Your task to perform on an android device: Open Youtube and go to the subscriptions tab Image 0: 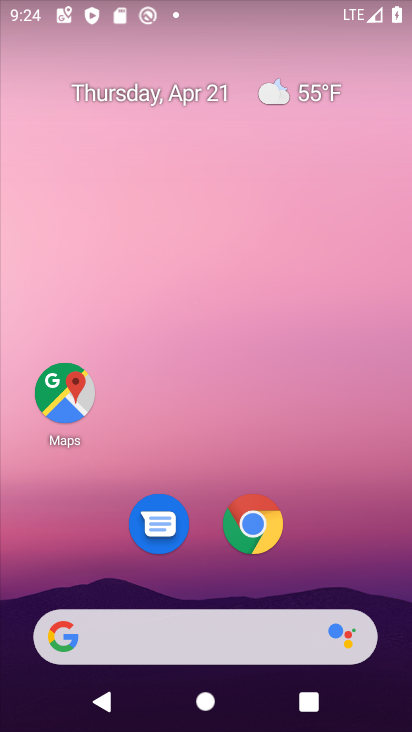
Step 0: drag from (349, 520) to (307, 64)
Your task to perform on an android device: Open Youtube and go to the subscriptions tab Image 1: 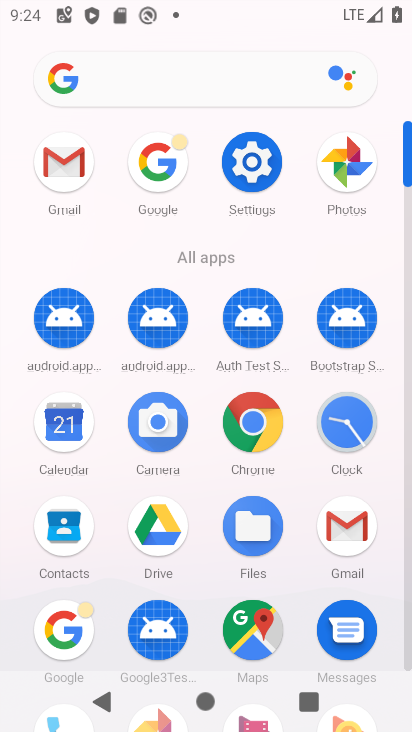
Step 1: drag from (307, 485) to (315, 159)
Your task to perform on an android device: Open Youtube and go to the subscriptions tab Image 2: 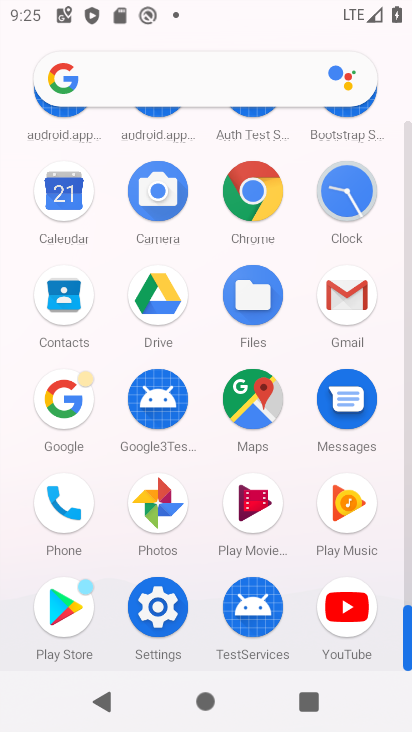
Step 2: click (346, 598)
Your task to perform on an android device: Open Youtube and go to the subscriptions tab Image 3: 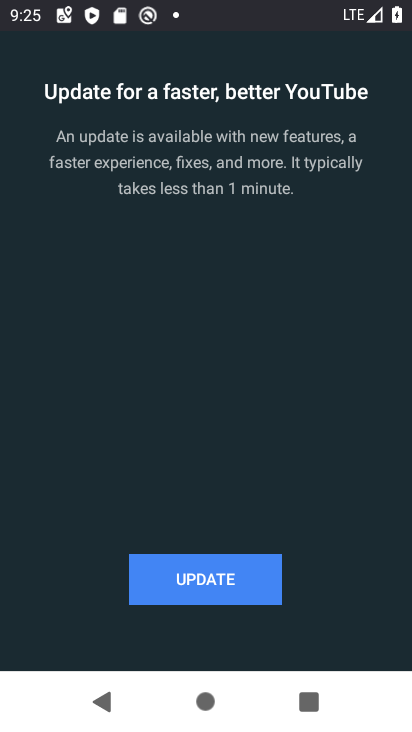
Step 3: click (258, 586)
Your task to perform on an android device: Open Youtube and go to the subscriptions tab Image 4: 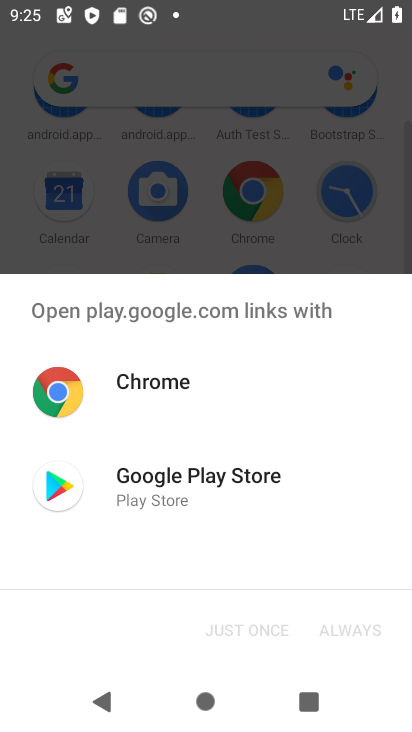
Step 4: click (208, 486)
Your task to perform on an android device: Open Youtube and go to the subscriptions tab Image 5: 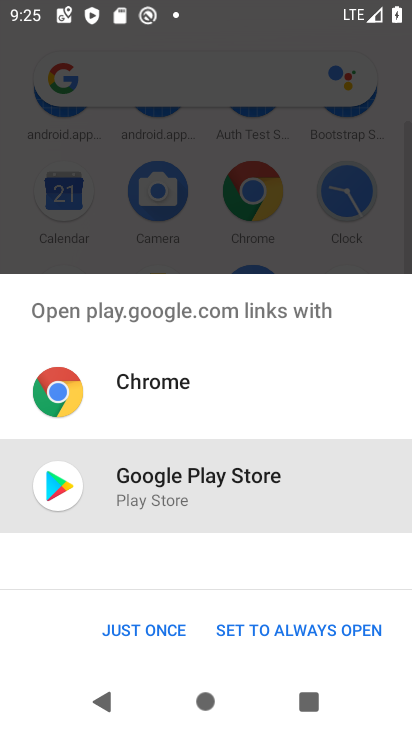
Step 5: click (142, 620)
Your task to perform on an android device: Open Youtube and go to the subscriptions tab Image 6: 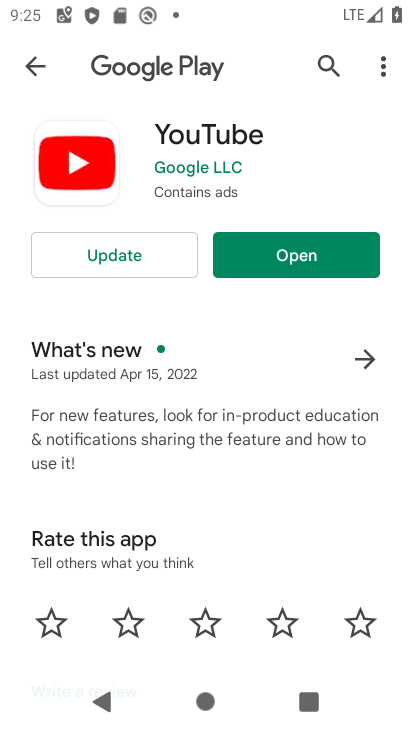
Step 6: click (139, 245)
Your task to perform on an android device: Open Youtube and go to the subscriptions tab Image 7: 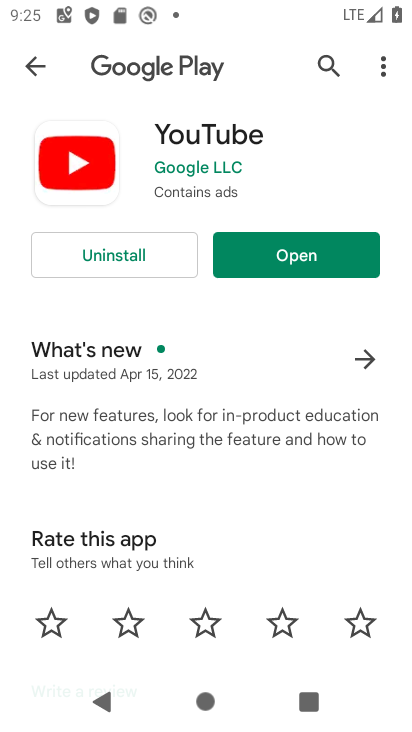
Step 7: click (294, 253)
Your task to perform on an android device: Open Youtube and go to the subscriptions tab Image 8: 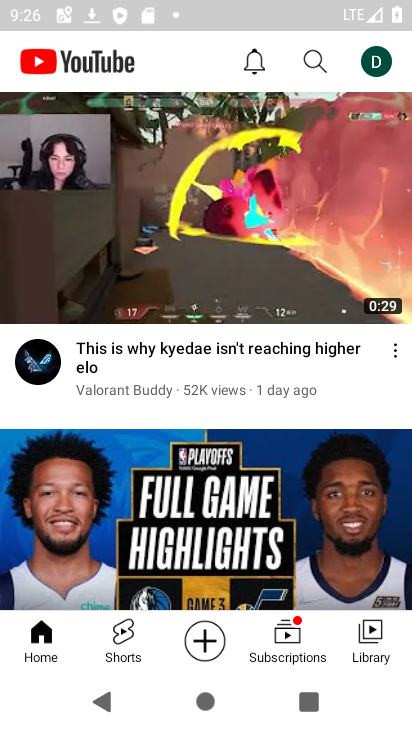
Step 8: click (291, 641)
Your task to perform on an android device: Open Youtube and go to the subscriptions tab Image 9: 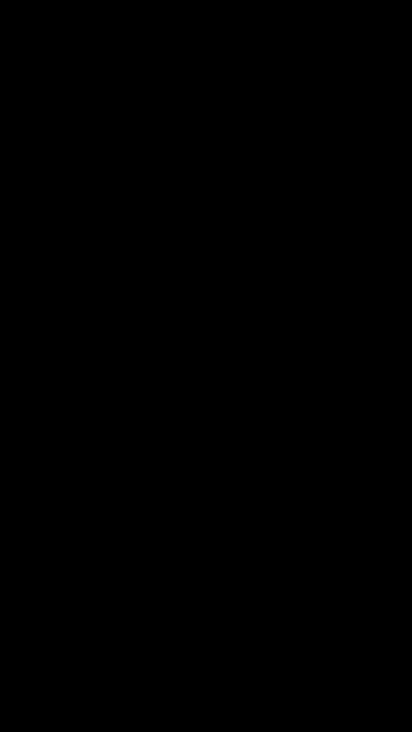
Step 9: task complete